Your task to perform on an android device: Open Google Maps Image 0: 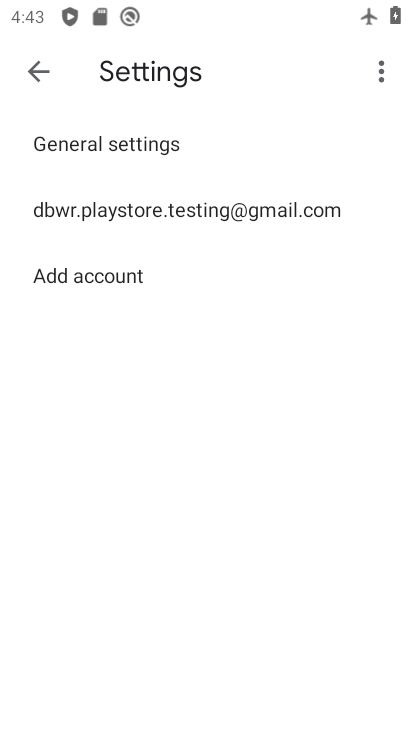
Step 0: press home button
Your task to perform on an android device: Open Google Maps Image 1: 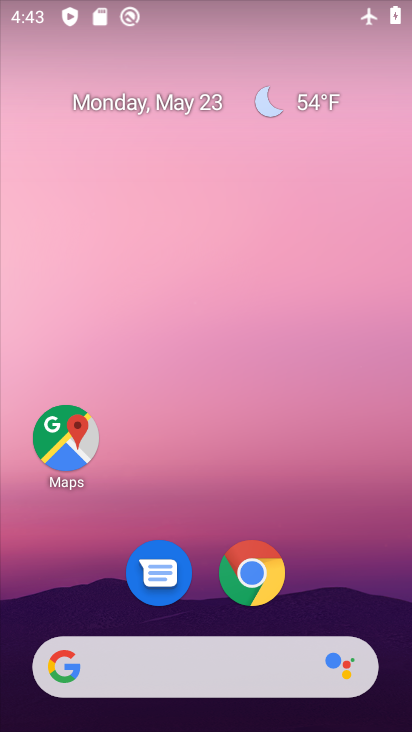
Step 1: drag from (202, 716) to (170, 225)
Your task to perform on an android device: Open Google Maps Image 2: 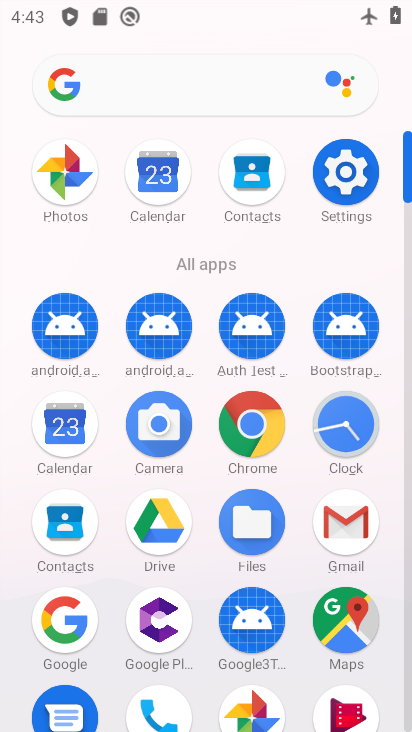
Step 2: click (340, 627)
Your task to perform on an android device: Open Google Maps Image 3: 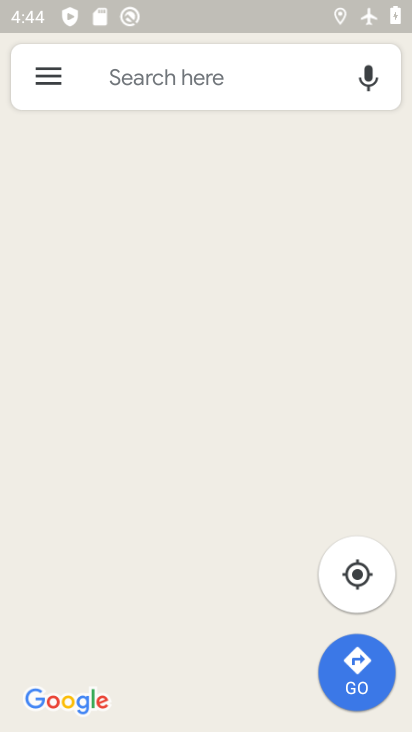
Step 3: task complete